Your task to perform on an android device: turn smart compose on in the gmail app Image 0: 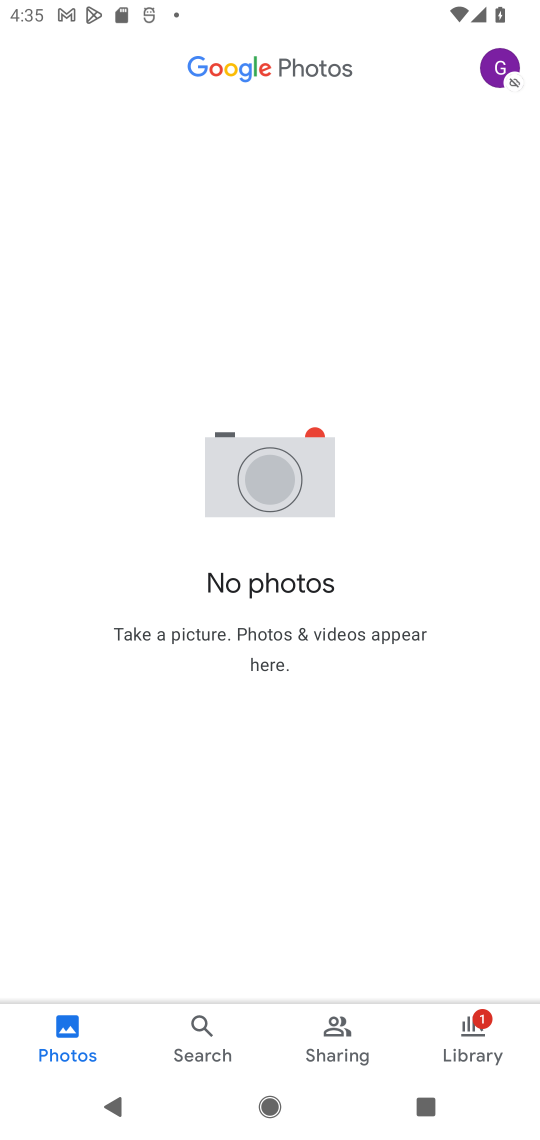
Step 0: press home button
Your task to perform on an android device: turn smart compose on in the gmail app Image 1: 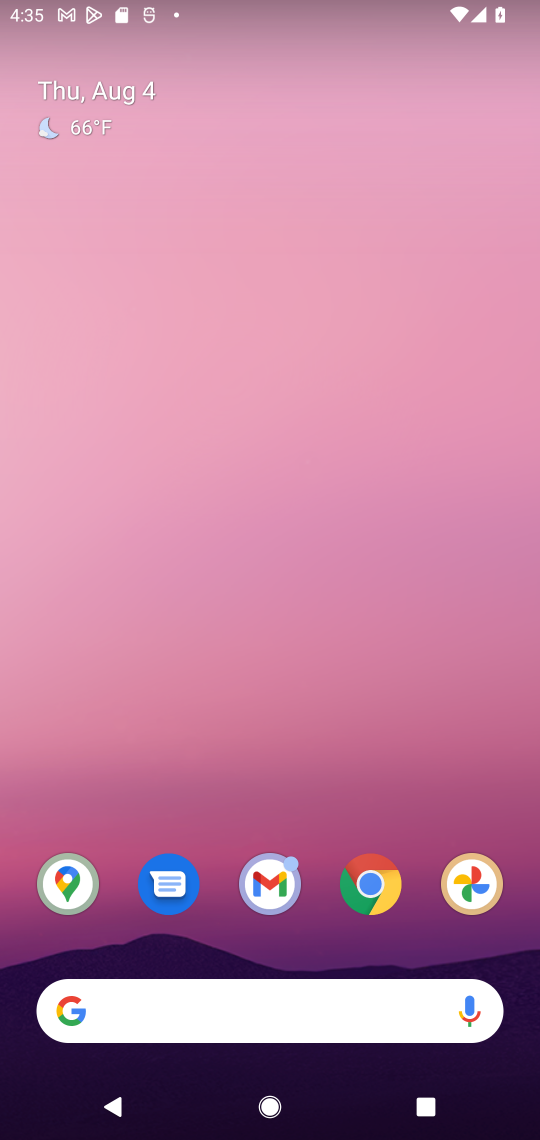
Step 1: click (254, 883)
Your task to perform on an android device: turn smart compose on in the gmail app Image 2: 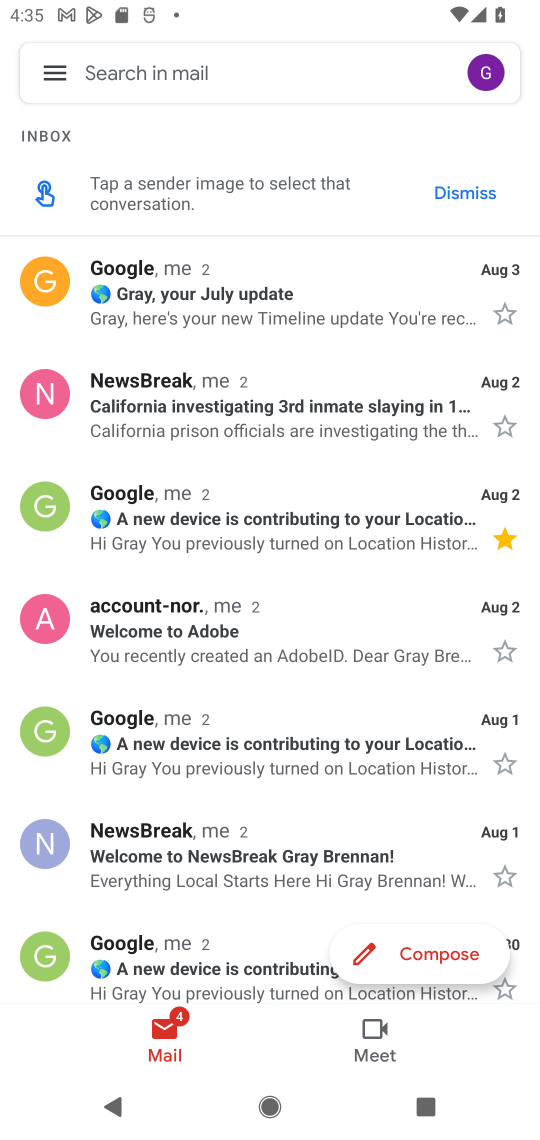
Step 2: click (83, 74)
Your task to perform on an android device: turn smart compose on in the gmail app Image 3: 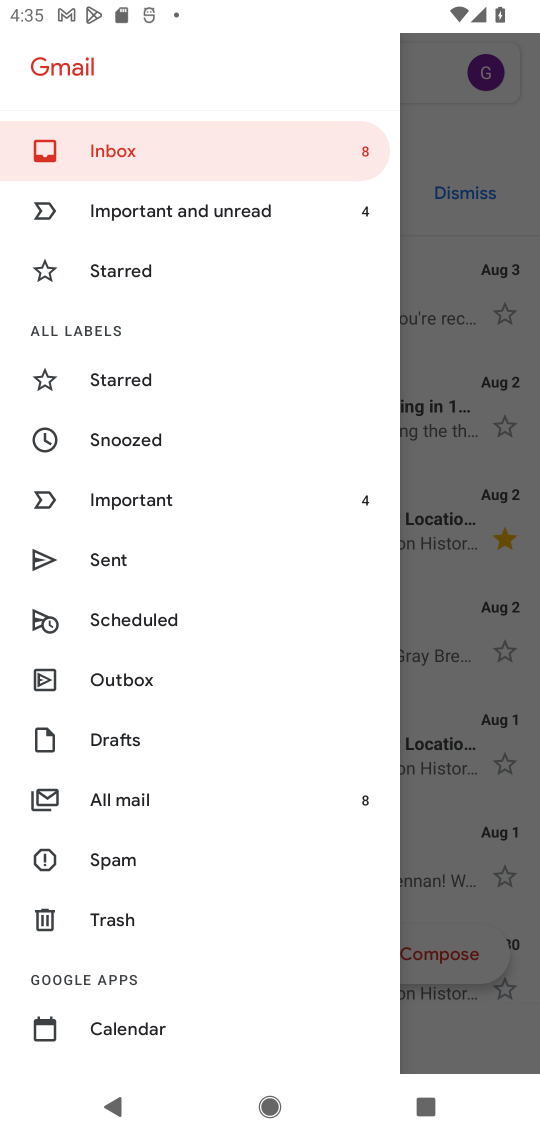
Step 3: task complete